Your task to perform on an android device: Open battery settings Image 0: 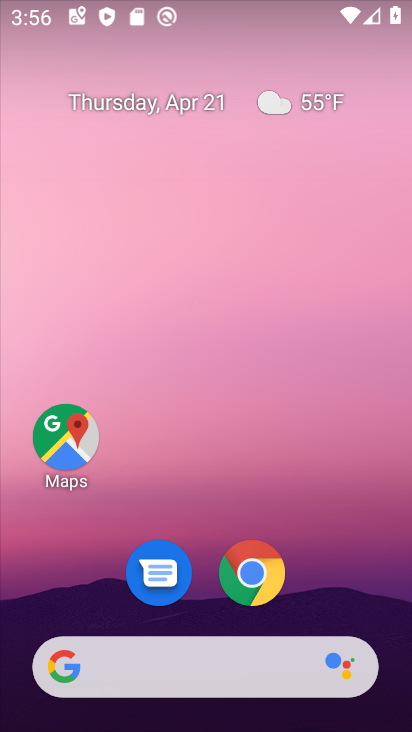
Step 0: drag from (355, 603) to (249, 126)
Your task to perform on an android device: Open battery settings Image 1: 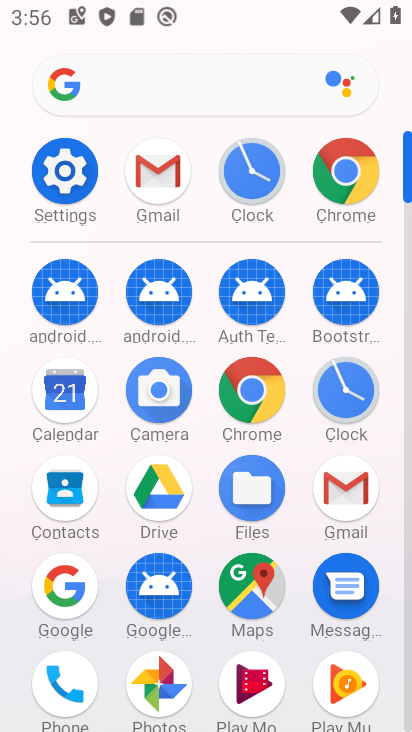
Step 1: click (408, 680)
Your task to perform on an android device: Open battery settings Image 2: 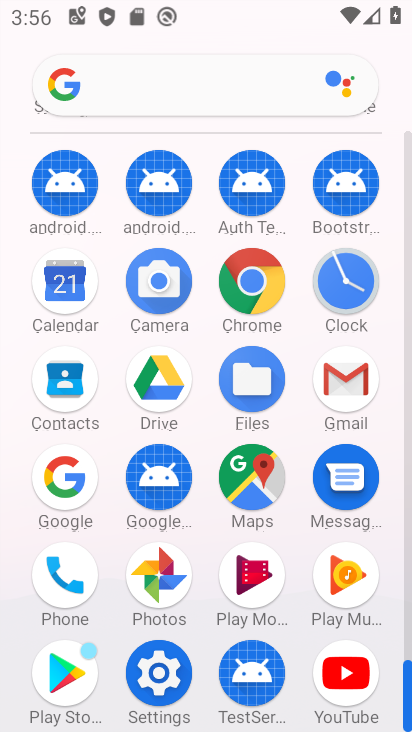
Step 2: click (156, 671)
Your task to perform on an android device: Open battery settings Image 3: 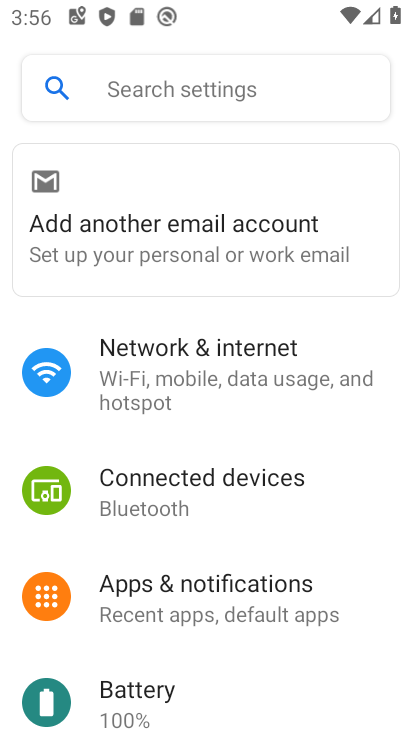
Step 3: drag from (345, 540) to (351, 318)
Your task to perform on an android device: Open battery settings Image 4: 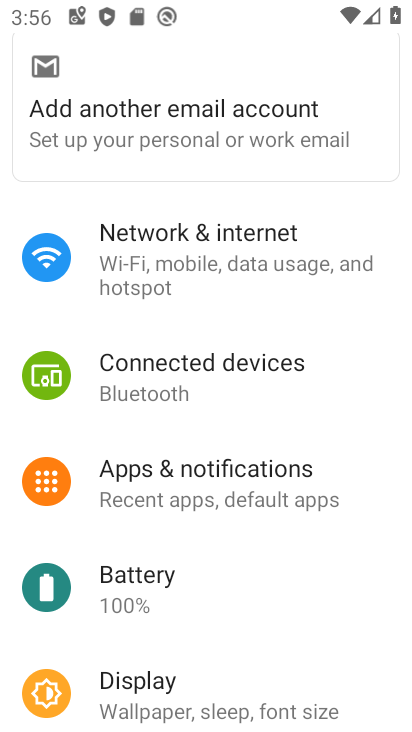
Step 4: click (114, 575)
Your task to perform on an android device: Open battery settings Image 5: 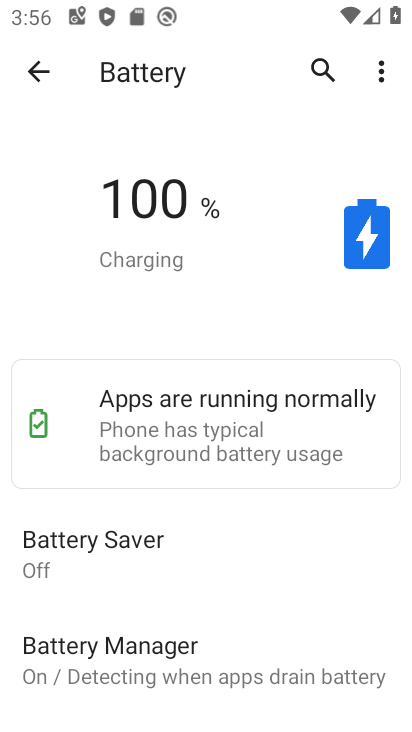
Step 5: task complete